Your task to perform on an android device: turn on the 24-hour format for clock Image 0: 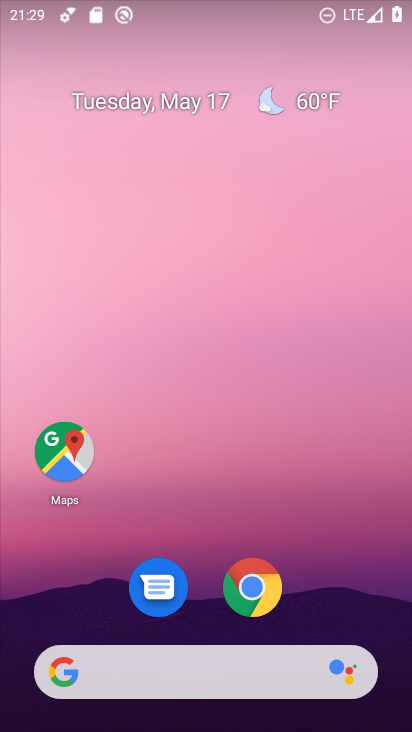
Step 0: drag from (229, 561) to (192, 337)
Your task to perform on an android device: turn on the 24-hour format for clock Image 1: 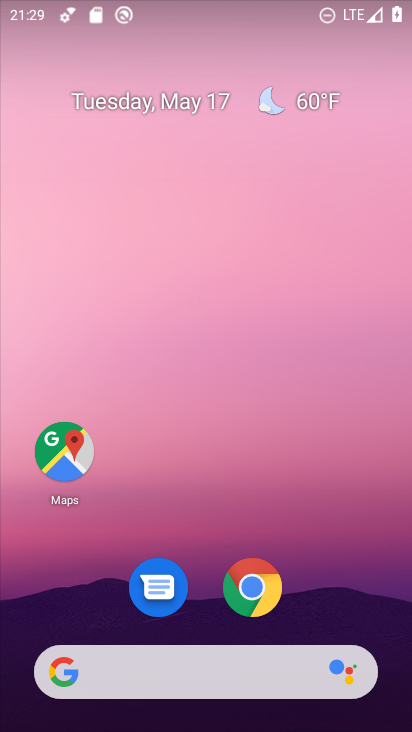
Step 1: drag from (186, 469) to (189, 62)
Your task to perform on an android device: turn on the 24-hour format for clock Image 2: 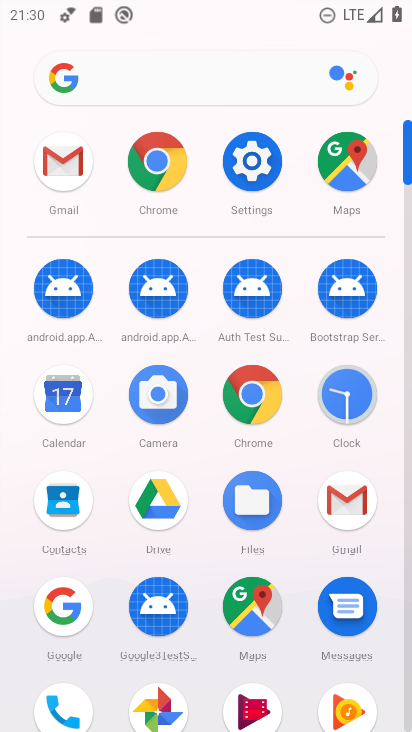
Step 2: click (359, 413)
Your task to perform on an android device: turn on the 24-hour format for clock Image 3: 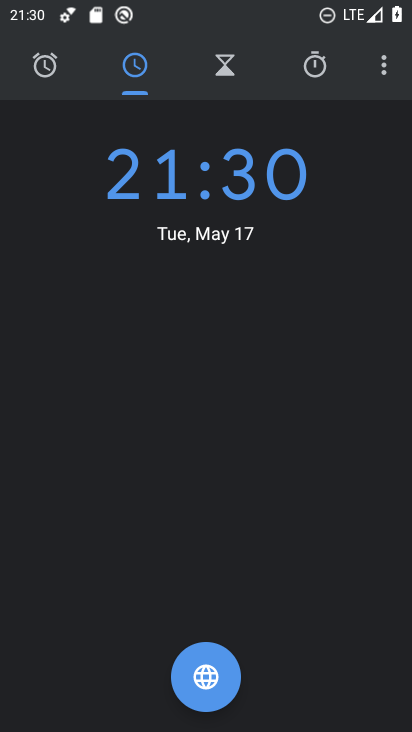
Step 3: click (390, 66)
Your task to perform on an android device: turn on the 24-hour format for clock Image 4: 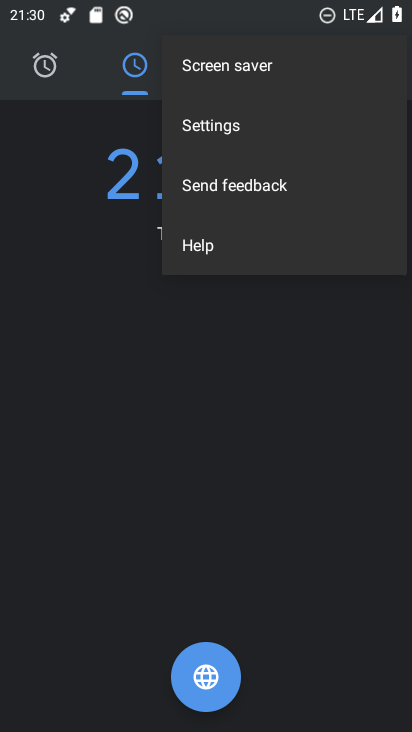
Step 4: click (274, 132)
Your task to perform on an android device: turn on the 24-hour format for clock Image 5: 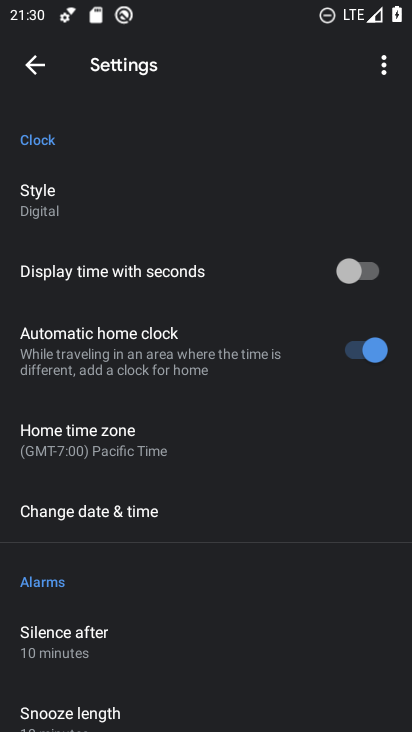
Step 5: click (157, 518)
Your task to perform on an android device: turn on the 24-hour format for clock Image 6: 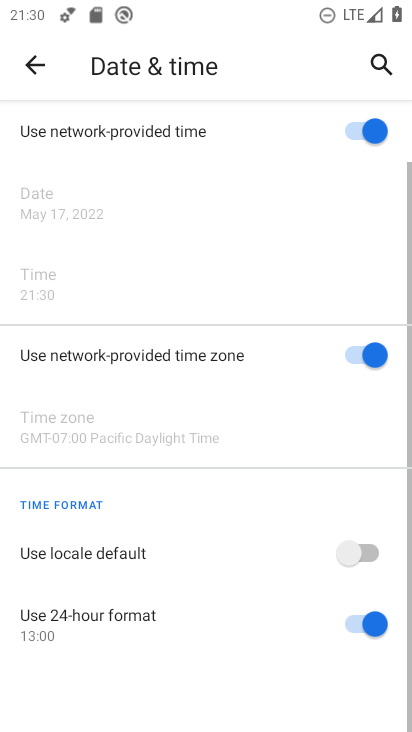
Step 6: task complete